Your task to perform on an android device: turn on bluetooth scan Image 0: 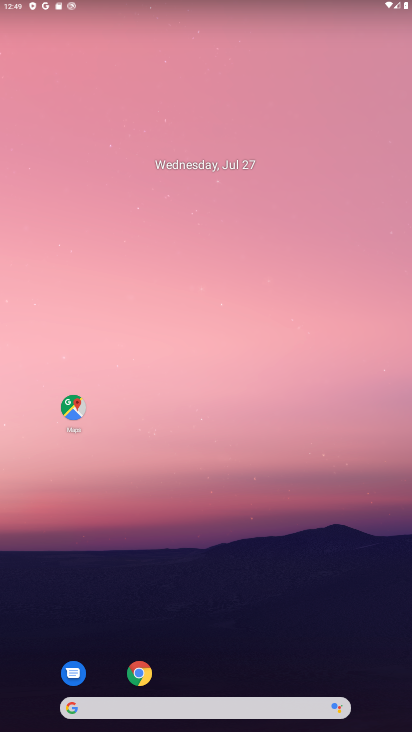
Step 0: drag from (316, 628) to (314, 69)
Your task to perform on an android device: turn on bluetooth scan Image 1: 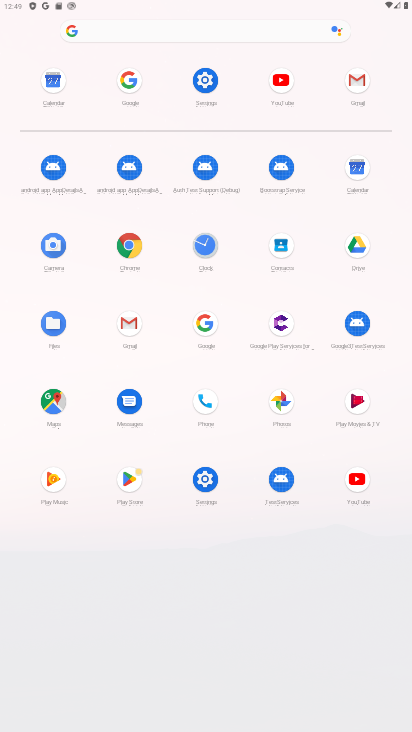
Step 1: click (201, 89)
Your task to perform on an android device: turn on bluetooth scan Image 2: 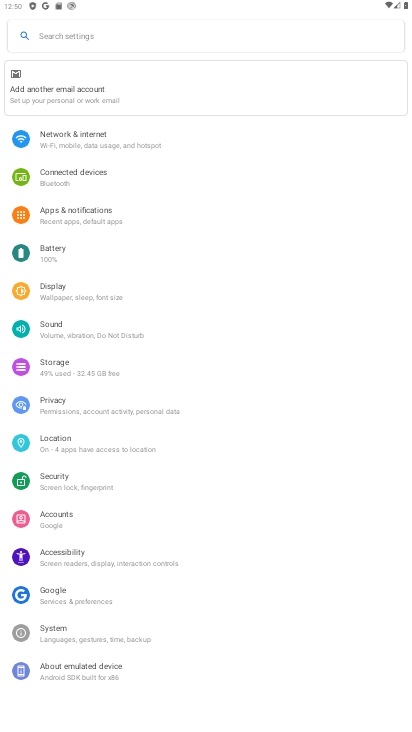
Step 2: click (54, 445)
Your task to perform on an android device: turn on bluetooth scan Image 3: 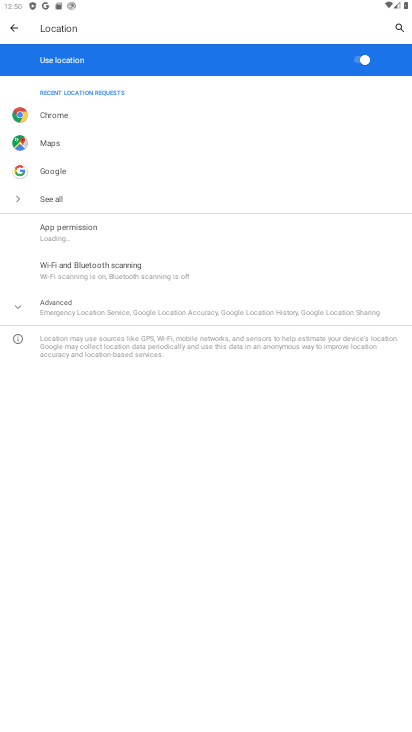
Step 3: click (66, 272)
Your task to perform on an android device: turn on bluetooth scan Image 4: 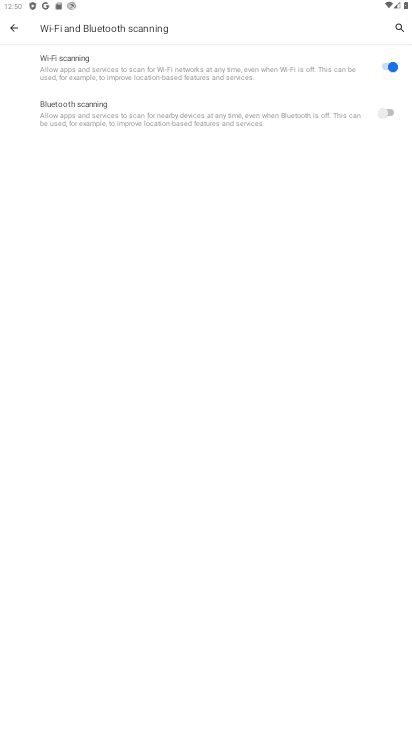
Step 4: click (382, 113)
Your task to perform on an android device: turn on bluetooth scan Image 5: 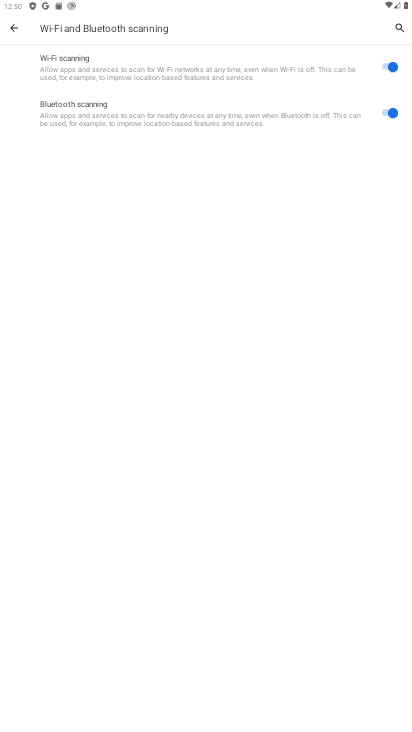
Step 5: task complete